Your task to perform on an android device: check the backup settings in the google photos Image 0: 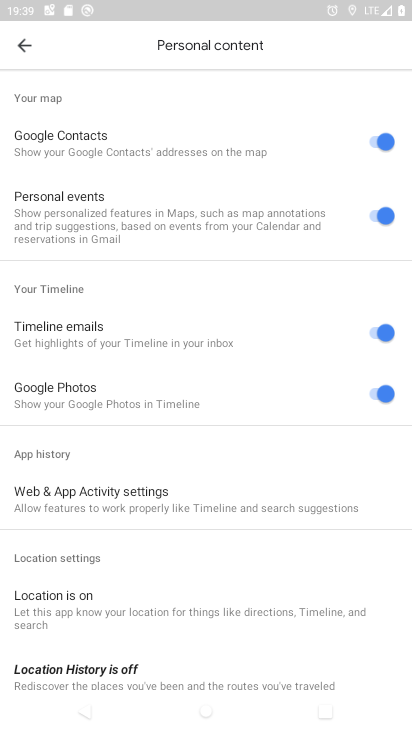
Step 0: press home button
Your task to perform on an android device: check the backup settings in the google photos Image 1: 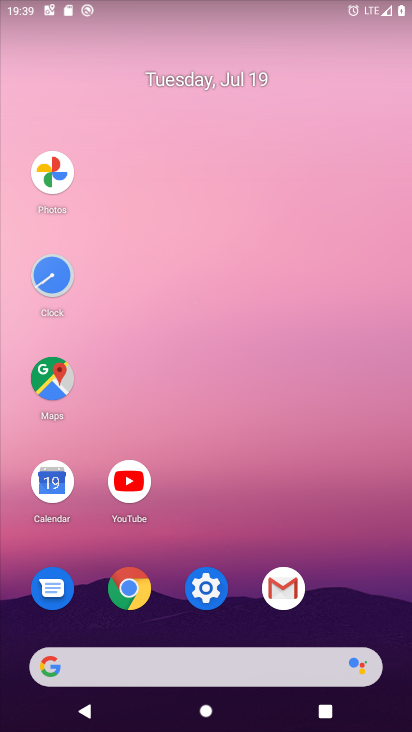
Step 1: click (54, 179)
Your task to perform on an android device: check the backup settings in the google photos Image 2: 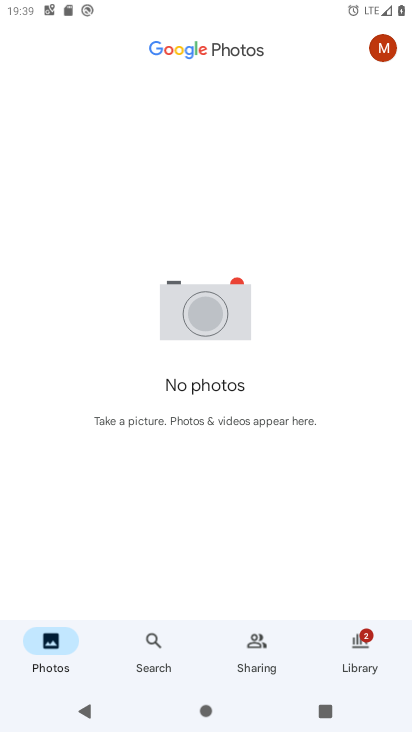
Step 2: click (381, 48)
Your task to perform on an android device: check the backup settings in the google photos Image 3: 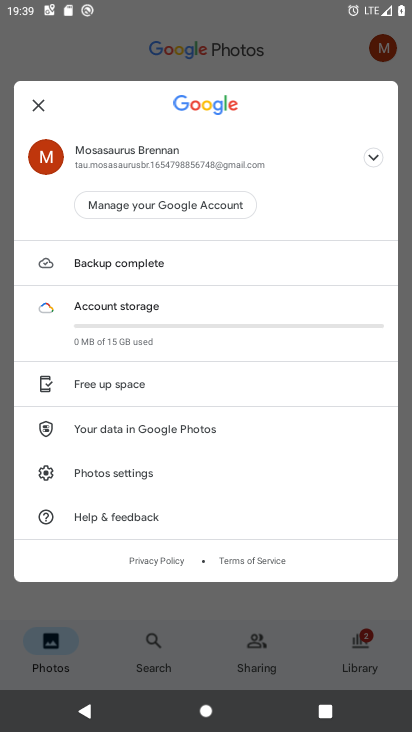
Step 3: click (94, 467)
Your task to perform on an android device: check the backup settings in the google photos Image 4: 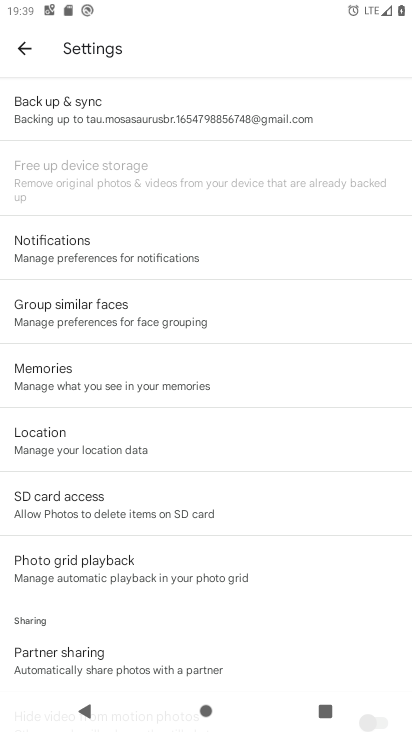
Step 4: click (65, 105)
Your task to perform on an android device: check the backup settings in the google photos Image 5: 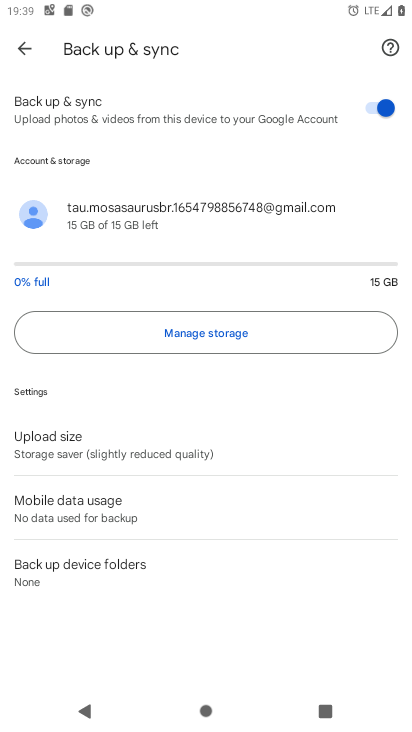
Step 5: task complete